Your task to perform on an android device: turn off notifications in google photos Image 0: 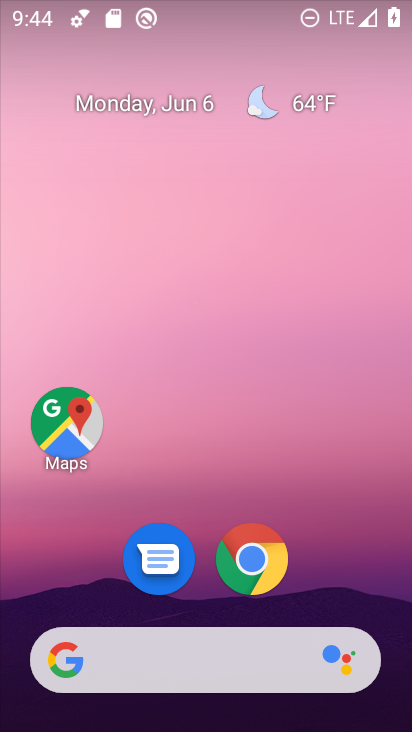
Step 0: drag from (257, 722) to (230, 236)
Your task to perform on an android device: turn off notifications in google photos Image 1: 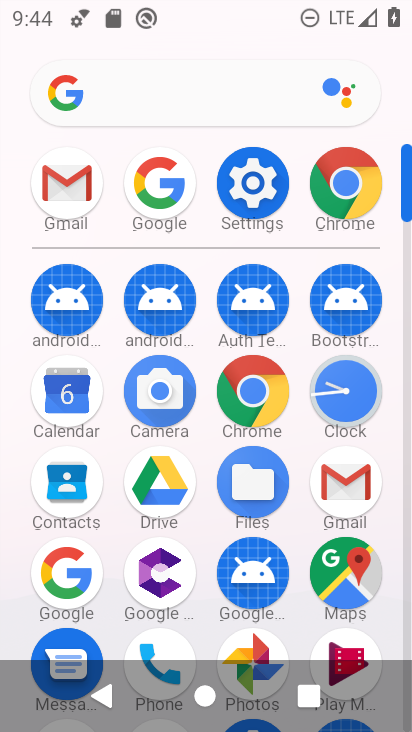
Step 1: drag from (284, 637) to (287, 334)
Your task to perform on an android device: turn off notifications in google photos Image 2: 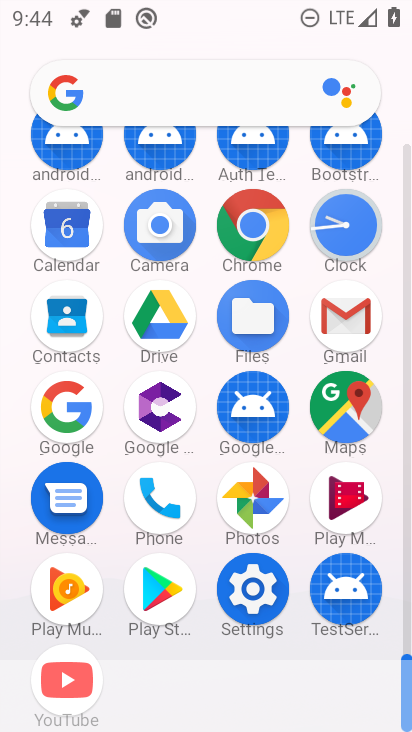
Step 2: click (248, 494)
Your task to perform on an android device: turn off notifications in google photos Image 3: 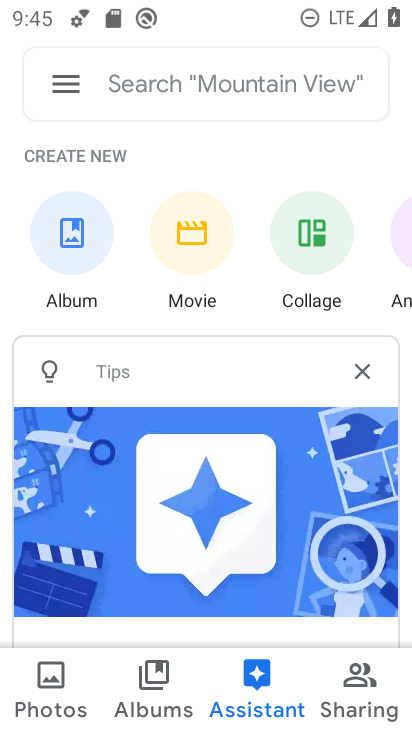
Step 3: click (65, 94)
Your task to perform on an android device: turn off notifications in google photos Image 4: 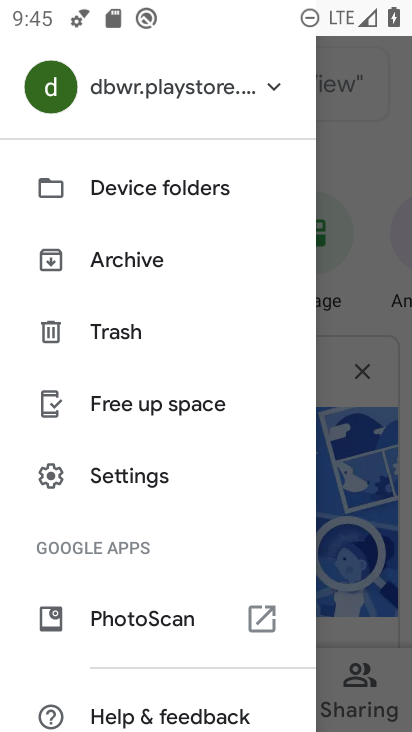
Step 4: drag from (125, 692) to (126, 345)
Your task to perform on an android device: turn off notifications in google photos Image 5: 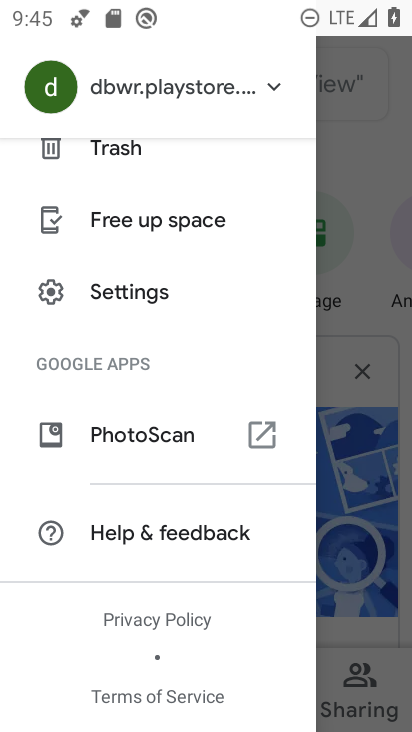
Step 5: click (136, 290)
Your task to perform on an android device: turn off notifications in google photos Image 6: 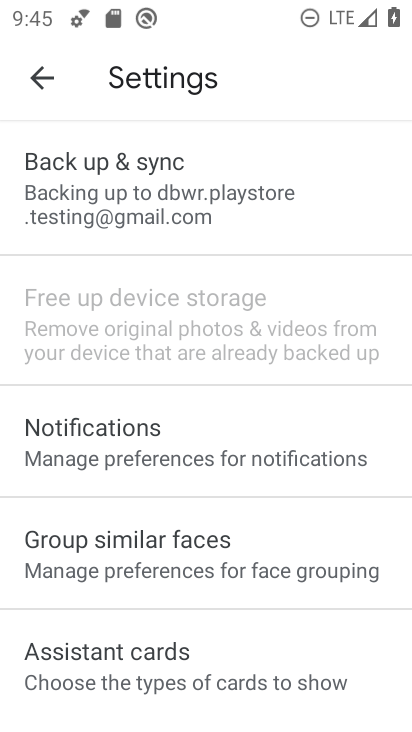
Step 6: click (125, 447)
Your task to perform on an android device: turn off notifications in google photos Image 7: 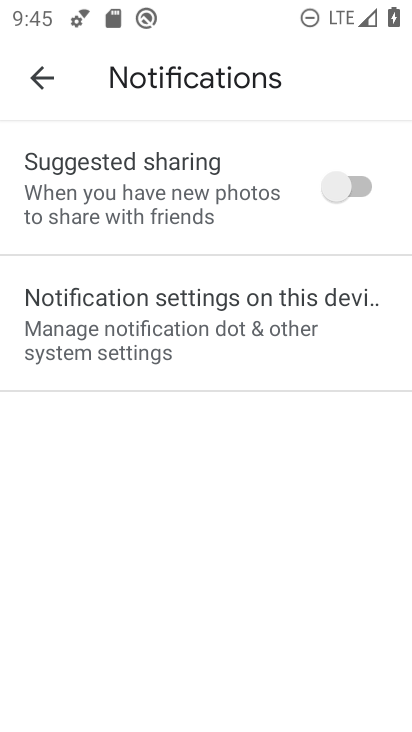
Step 7: click (152, 328)
Your task to perform on an android device: turn off notifications in google photos Image 8: 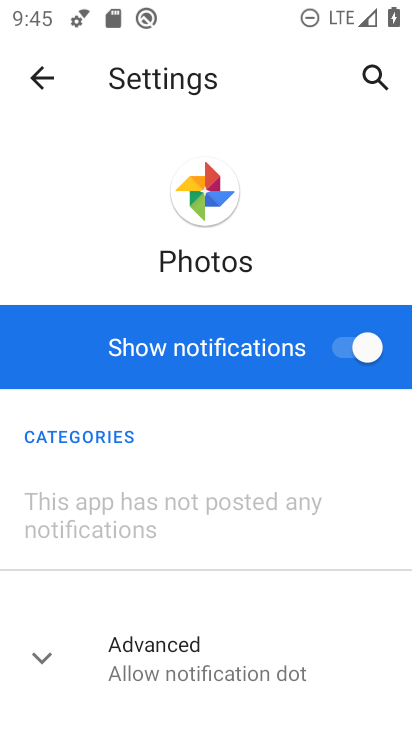
Step 8: click (342, 353)
Your task to perform on an android device: turn off notifications in google photos Image 9: 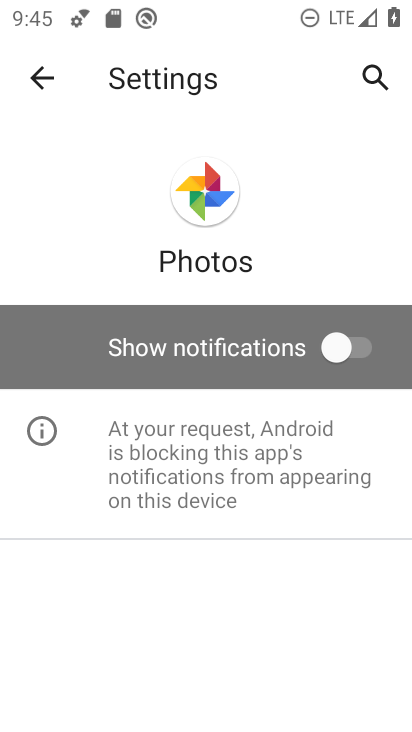
Step 9: task complete